Your task to perform on an android device: Open Google Image 0: 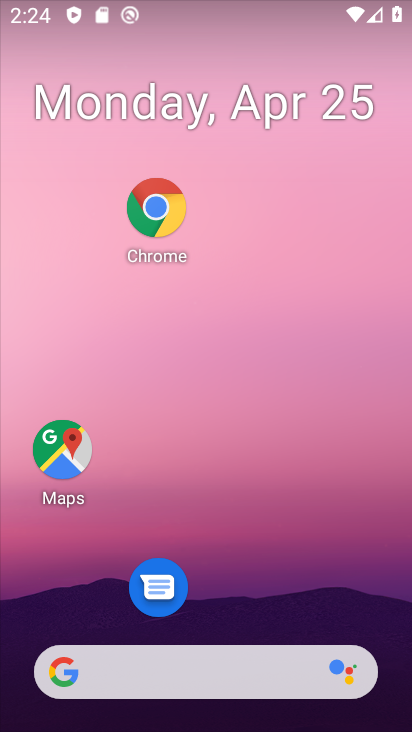
Step 0: click (324, 726)
Your task to perform on an android device: Open Google Image 1: 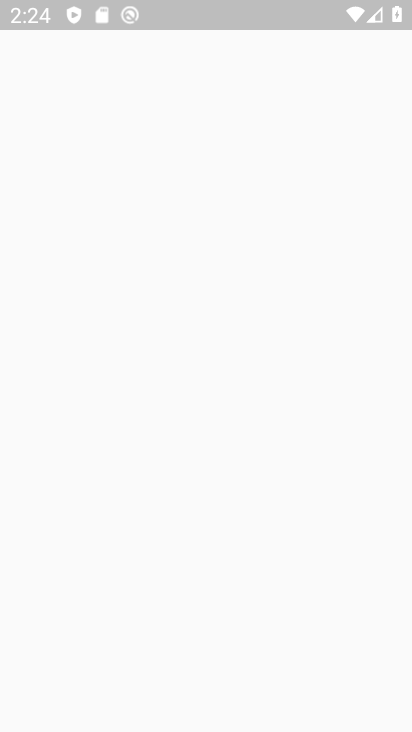
Step 1: drag from (238, 11) to (254, 471)
Your task to perform on an android device: Open Google Image 2: 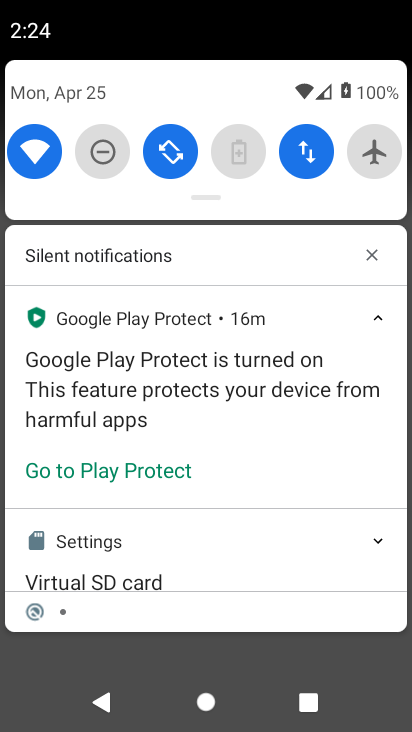
Step 2: drag from (195, 204) to (184, 492)
Your task to perform on an android device: Open Google Image 3: 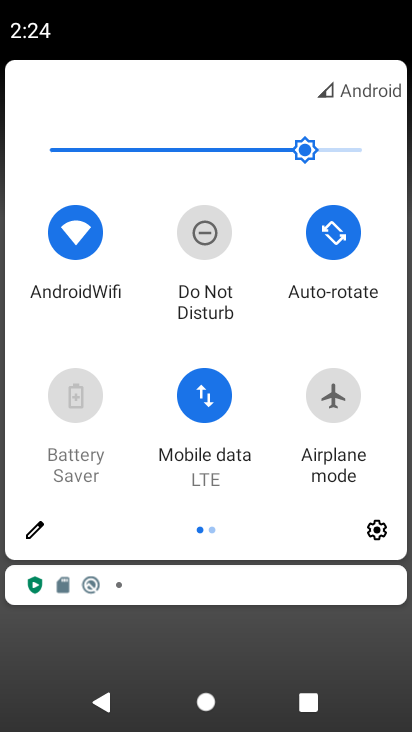
Step 3: press home button
Your task to perform on an android device: Open Google Image 4: 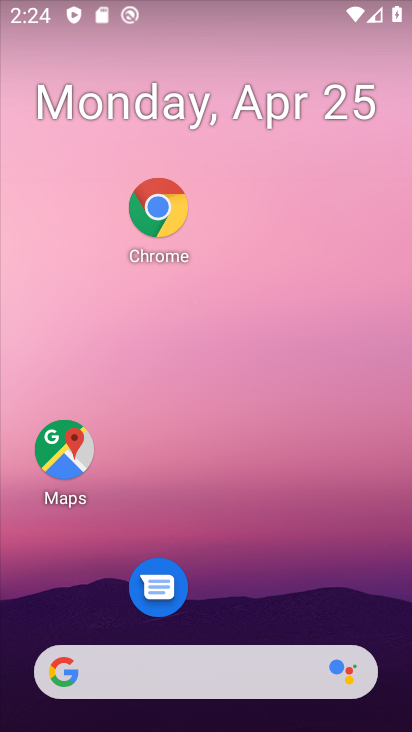
Step 4: drag from (349, 526) to (404, 407)
Your task to perform on an android device: Open Google Image 5: 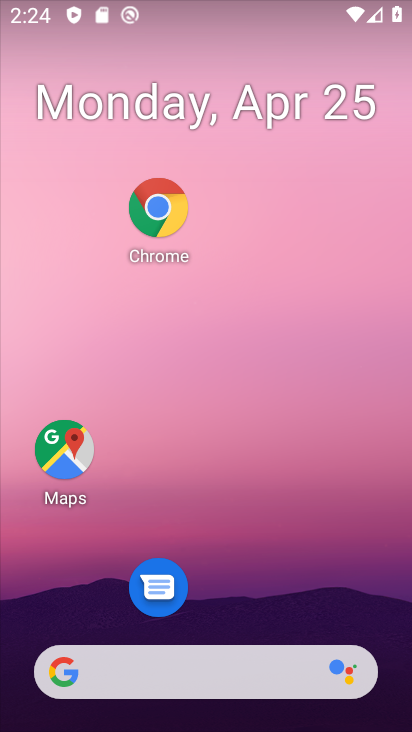
Step 5: drag from (307, 470) to (291, 49)
Your task to perform on an android device: Open Google Image 6: 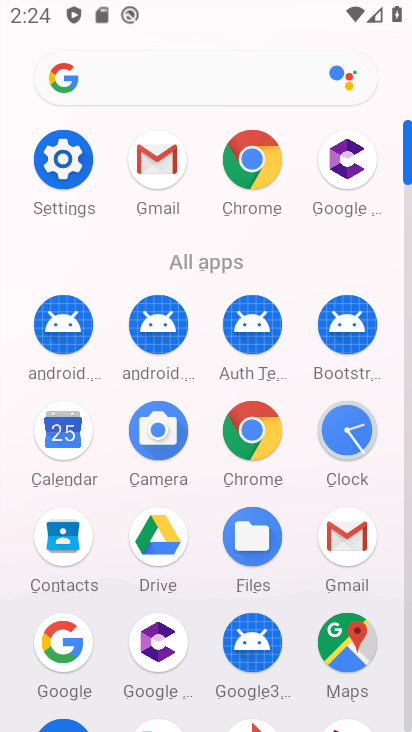
Step 6: click (72, 644)
Your task to perform on an android device: Open Google Image 7: 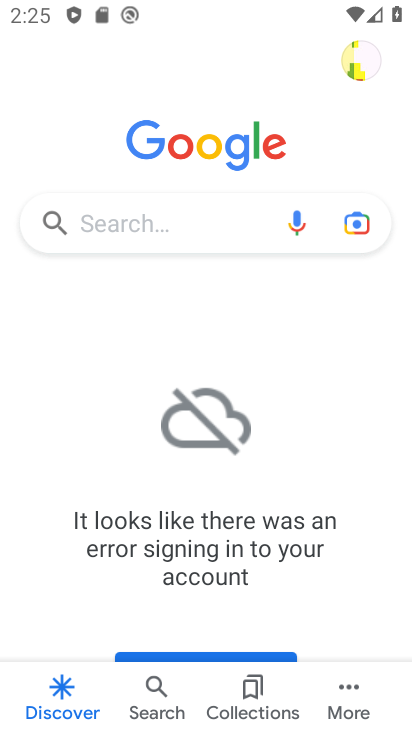
Step 7: task complete